Your task to perform on an android device: turn on improve location accuracy Image 0: 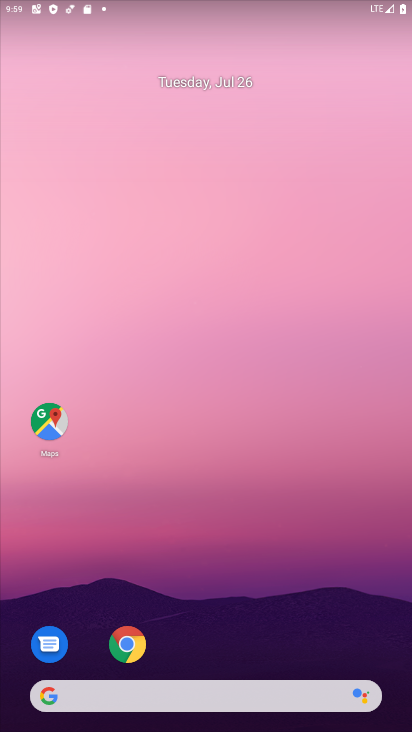
Step 0: drag from (318, 663) to (276, 8)
Your task to perform on an android device: turn on improve location accuracy Image 1: 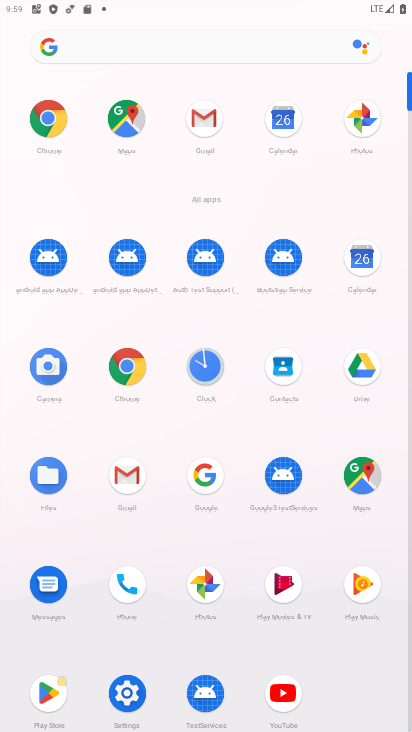
Step 1: click (122, 689)
Your task to perform on an android device: turn on improve location accuracy Image 2: 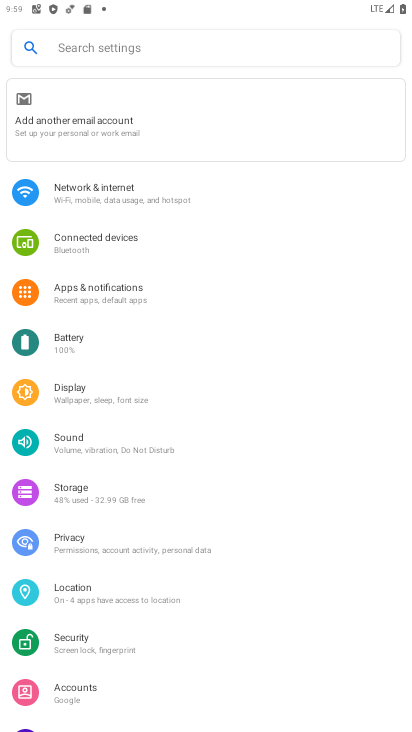
Step 2: click (110, 598)
Your task to perform on an android device: turn on improve location accuracy Image 3: 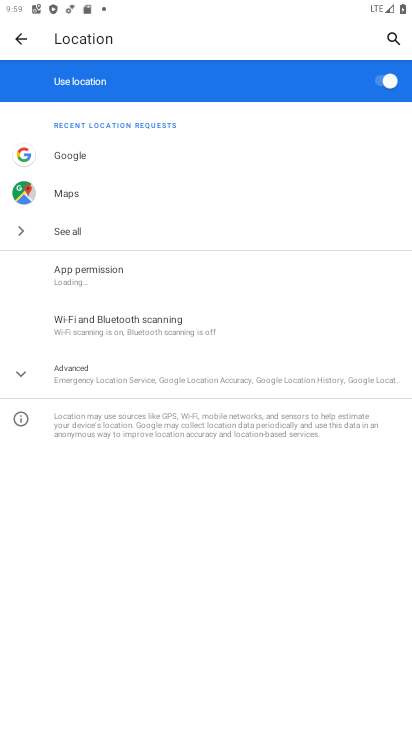
Step 3: click (22, 378)
Your task to perform on an android device: turn on improve location accuracy Image 4: 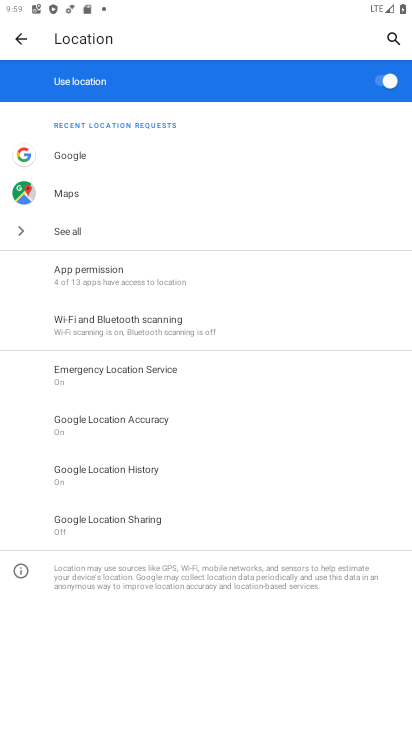
Step 4: click (93, 425)
Your task to perform on an android device: turn on improve location accuracy Image 5: 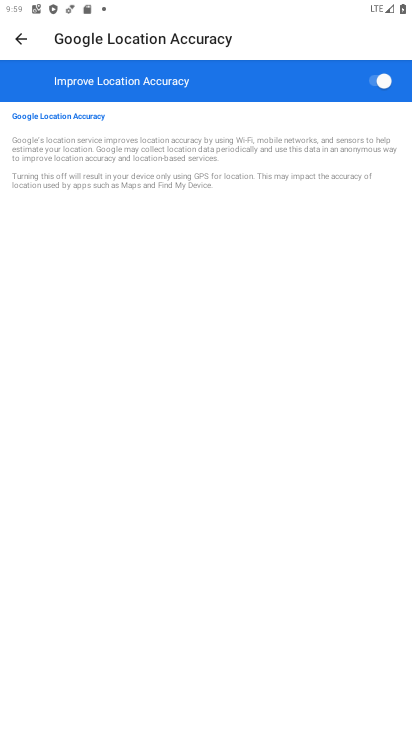
Step 5: task complete